Your task to perform on an android device: toggle improve location accuracy Image 0: 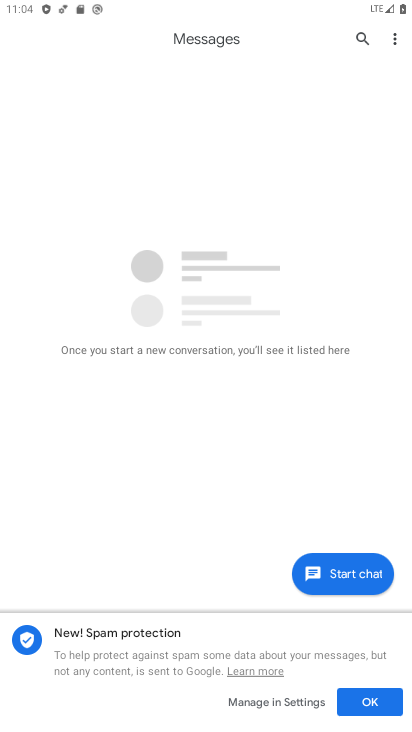
Step 0: press home button
Your task to perform on an android device: toggle improve location accuracy Image 1: 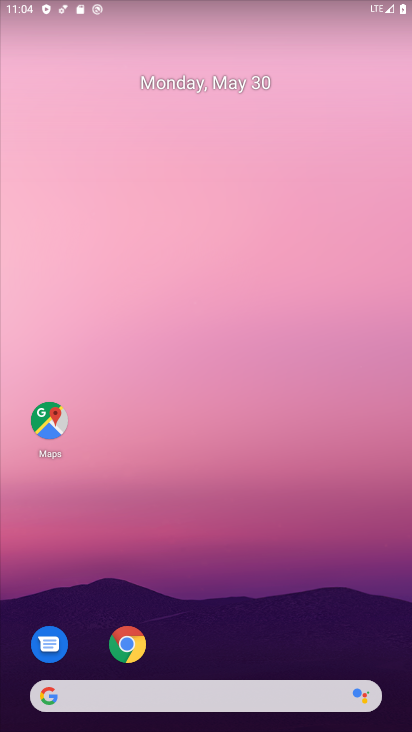
Step 1: drag from (340, 668) to (225, 170)
Your task to perform on an android device: toggle improve location accuracy Image 2: 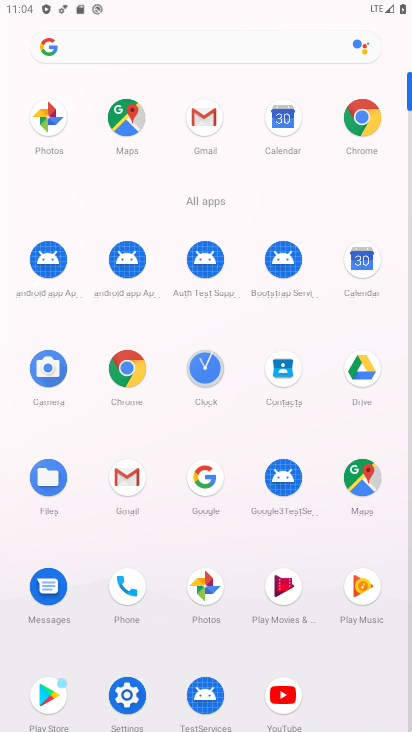
Step 2: click (132, 696)
Your task to perform on an android device: toggle improve location accuracy Image 3: 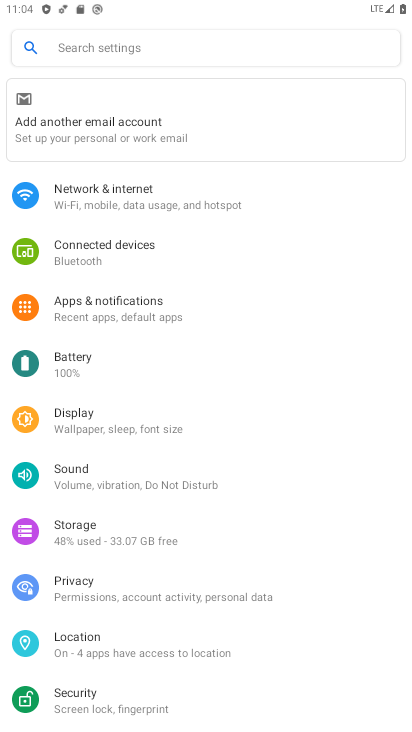
Step 3: drag from (78, 522) to (103, 359)
Your task to perform on an android device: toggle improve location accuracy Image 4: 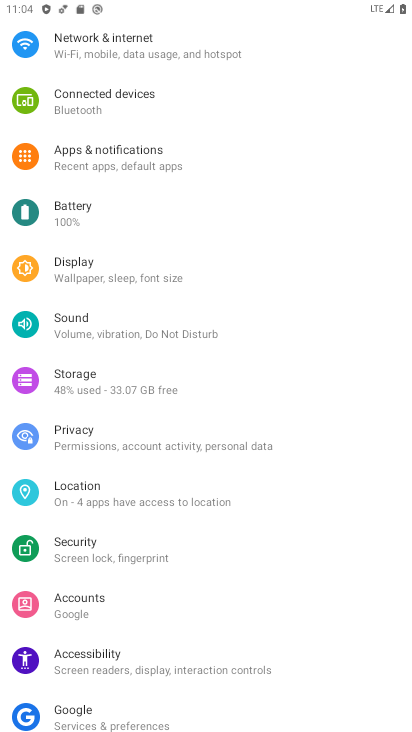
Step 4: click (137, 494)
Your task to perform on an android device: toggle improve location accuracy Image 5: 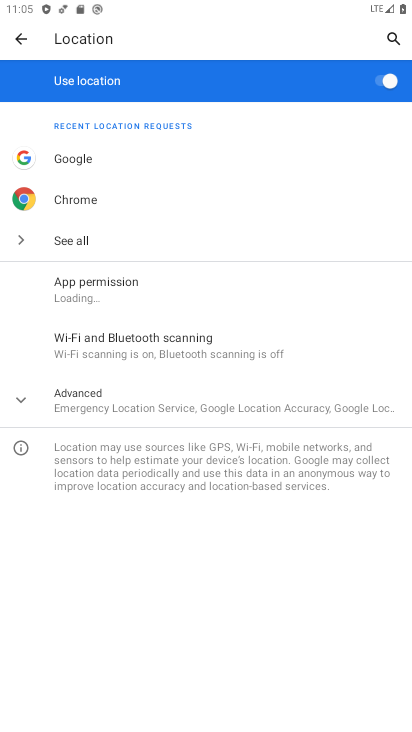
Step 5: click (129, 413)
Your task to perform on an android device: toggle improve location accuracy Image 6: 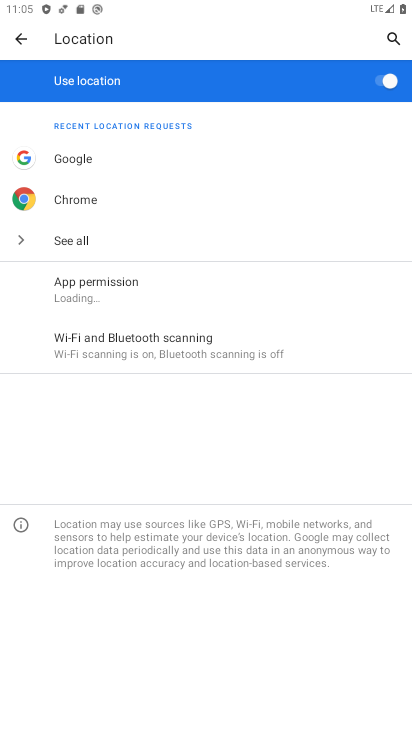
Step 6: click (130, 456)
Your task to perform on an android device: toggle improve location accuracy Image 7: 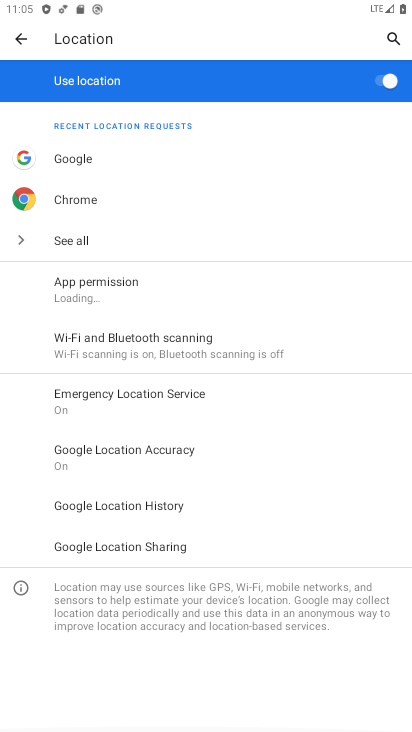
Step 7: click (125, 465)
Your task to perform on an android device: toggle improve location accuracy Image 8: 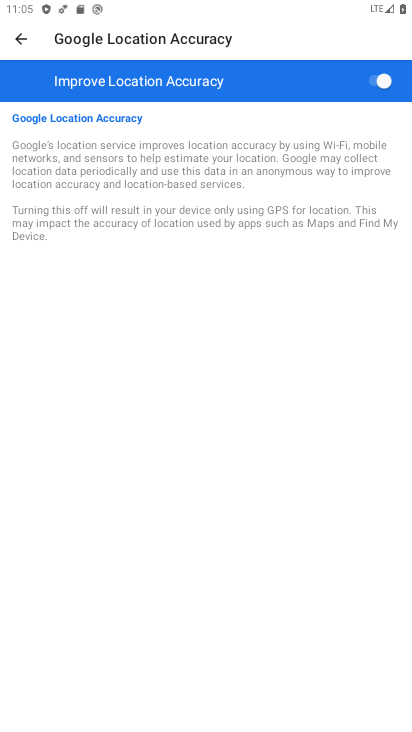
Step 8: click (237, 85)
Your task to perform on an android device: toggle improve location accuracy Image 9: 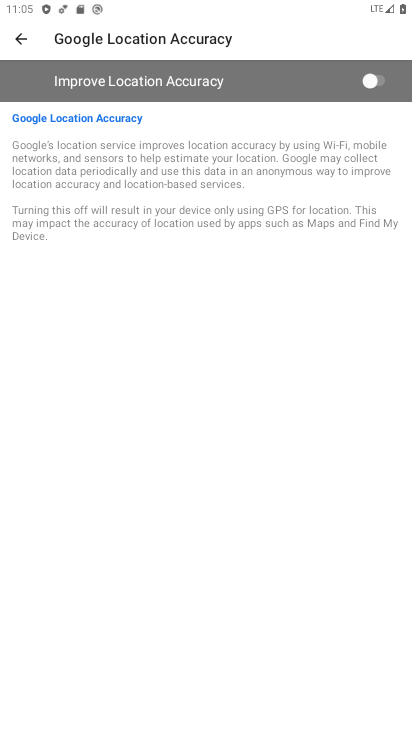
Step 9: task complete